Your task to perform on an android device: Go to calendar. Show me events next week Image 0: 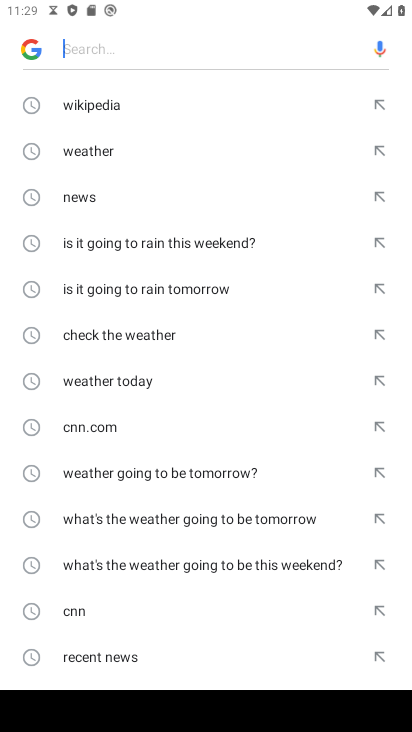
Step 0: press home button
Your task to perform on an android device: Go to calendar. Show me events next week Image 1: 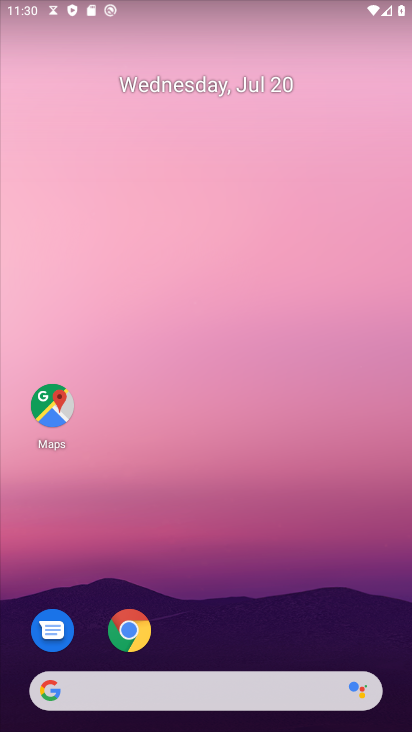
Step 1: drag from (51, 679) to (262, 206)
Your task to perform on an android device: Go to calendar. Show me events next week Image 2: 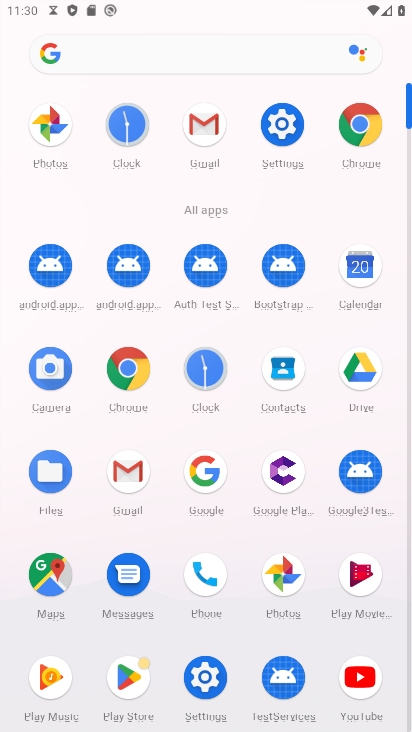
Step 2: click (350, 258)
Your task to perform on an android device: Go to calendar. Show me events next week Image 3: 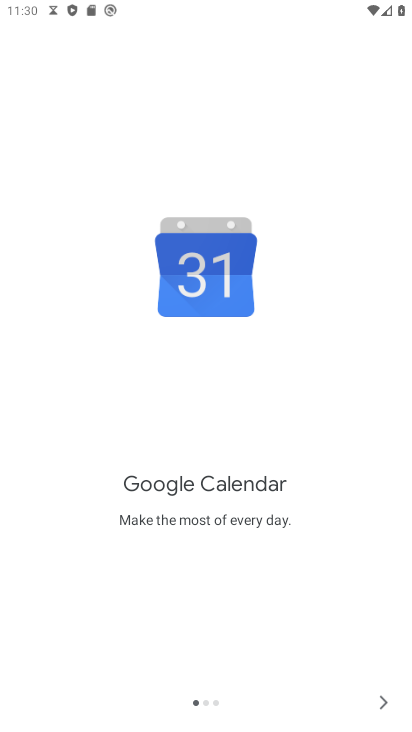
Step 3: click (379, 700)
Your task to perform on an android device: Go to calendar. Show me events next week Image 4: 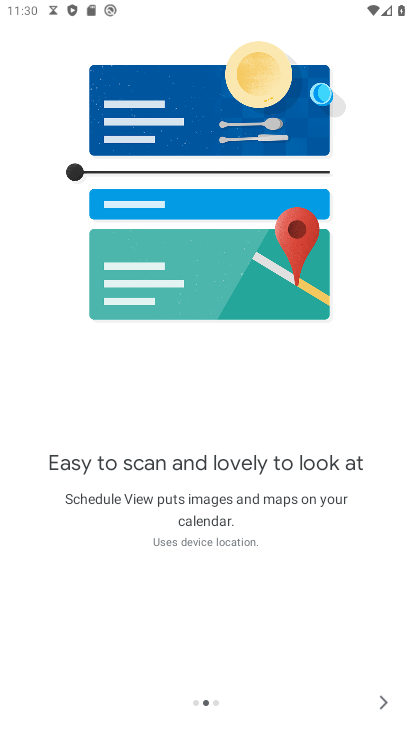
Step 4: click (379, 707)
Your task to perform on an android device: Go to calendar. Show me events next week Image 5: 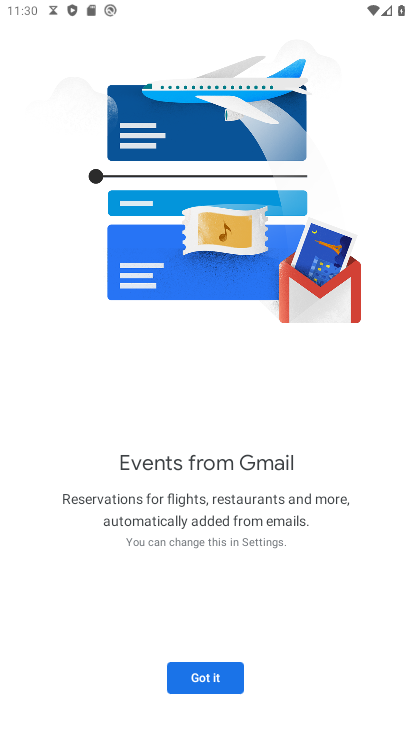
Step 5: click (178, 662)
Your task to perform on an android device: Go to calendar. Show me events next week Image 6: 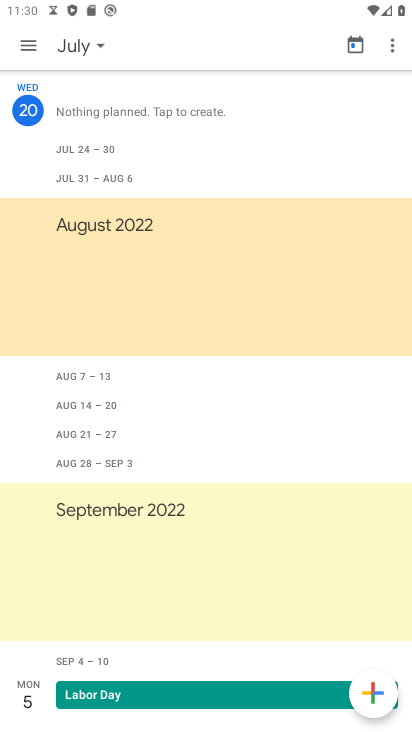
Step 6: click (103, 41)
Your task to perform on an android device: Go to calendar. Show me events next week Image 7: 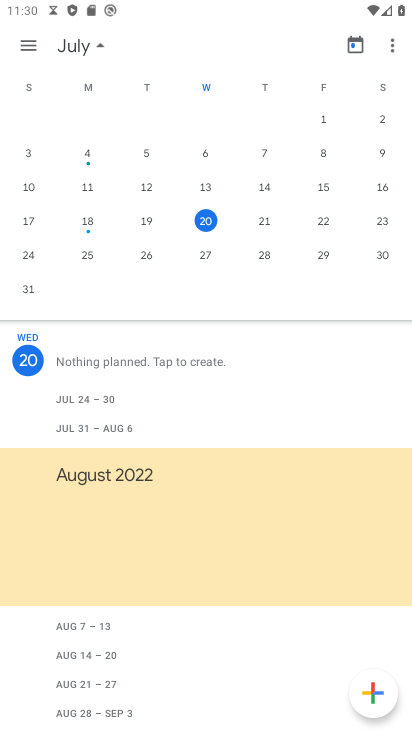
Step 7: task complete